Your task to perform on an android device: Open Android settings Image 0: 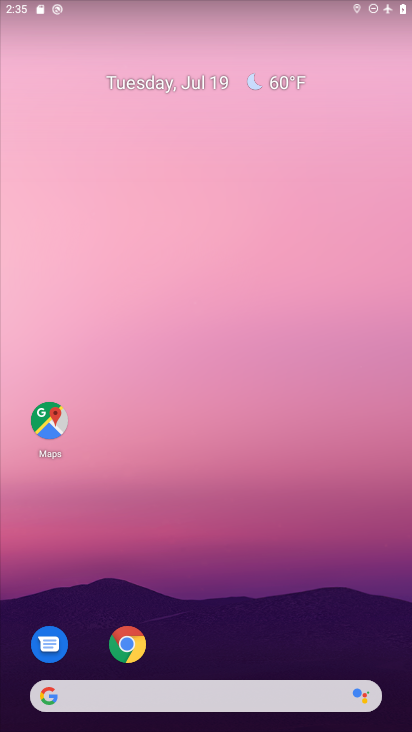
Step 0: drag from (231, 673) to (236, 127)
Your task to perform on an android device: Open Android settings Image 1: 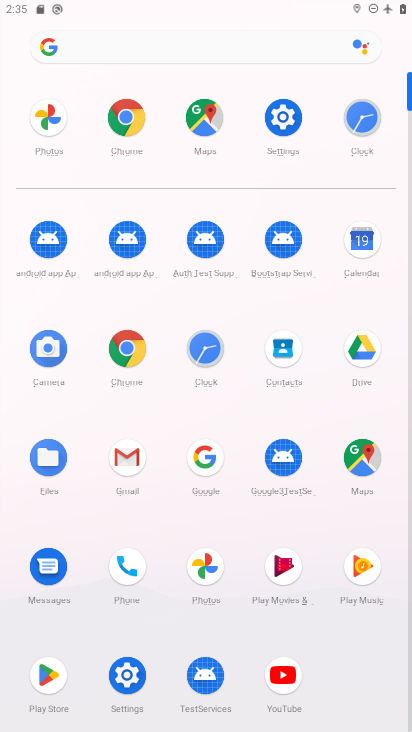
Step 1: click (135, 682)
Your task to perform on an android device: Open Android settings Image 2: 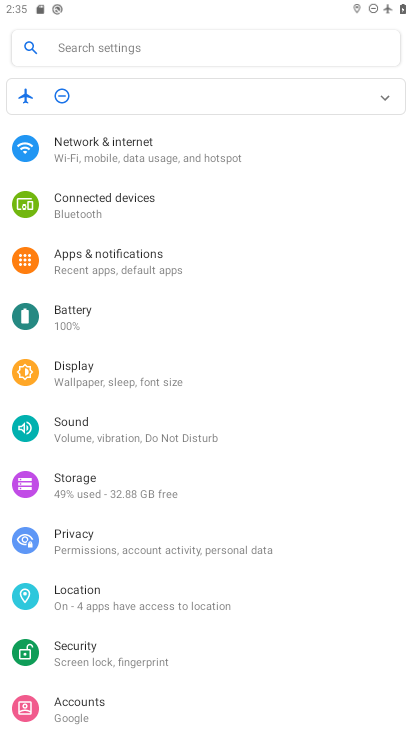
Step 2: click (75, 149)
Your task to perform on an android device: Open Android settings Image 3: 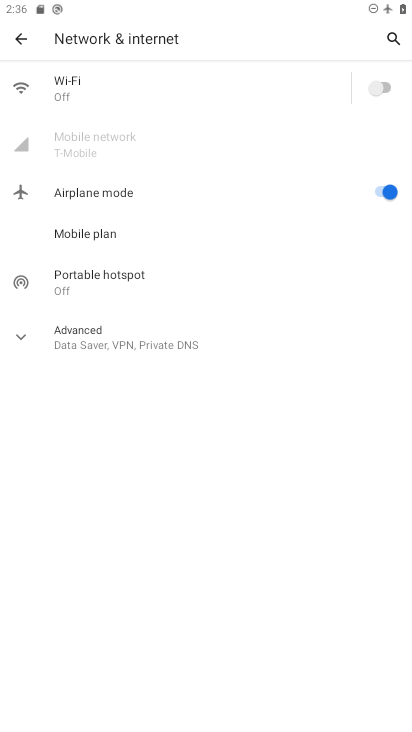
Step 3: task complete